Your task to perform on an android device: add a contact in the contacts app Image 0: 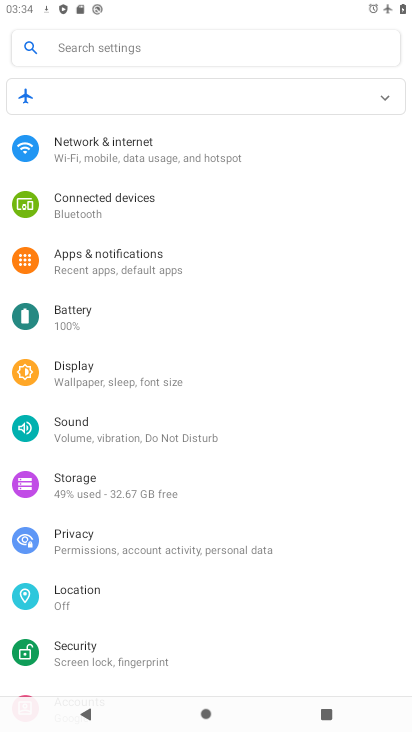
Step 0: press home button
Your task to perform on an android device: add a contact in the contacts app Image 1: 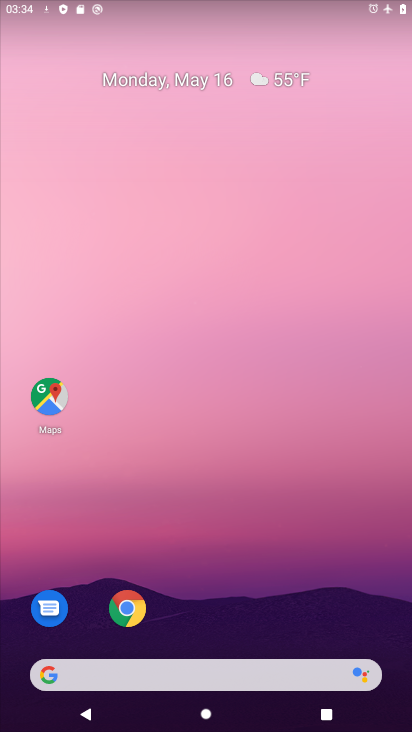
Step 1: drag from (190, 634) to (207, 230)
Your task to perform on an android device: add a contact in the contacts app Image 2: 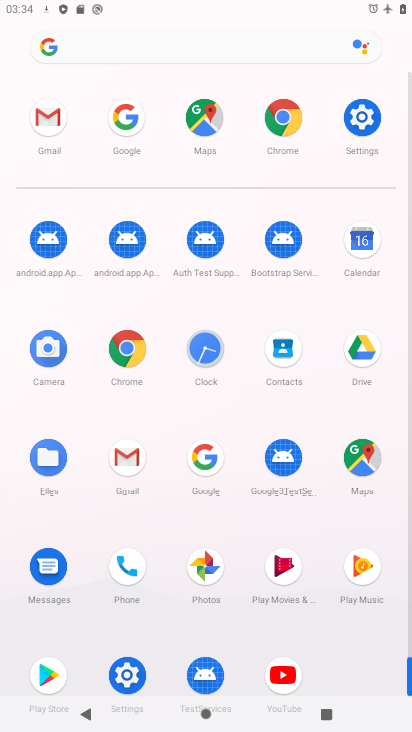
Step 2: click (286, 351)
Your task to perform on an android device: add a contact in the contacts app Image 3: 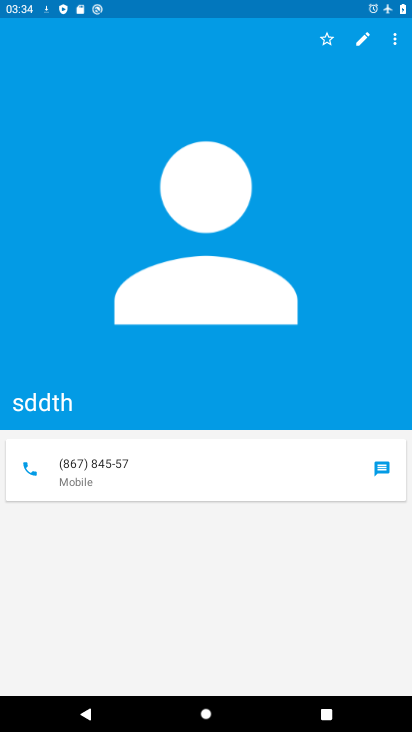
Step 3: press back button
Your task to perform on an android device: add a contact in the contacts app Image 4: 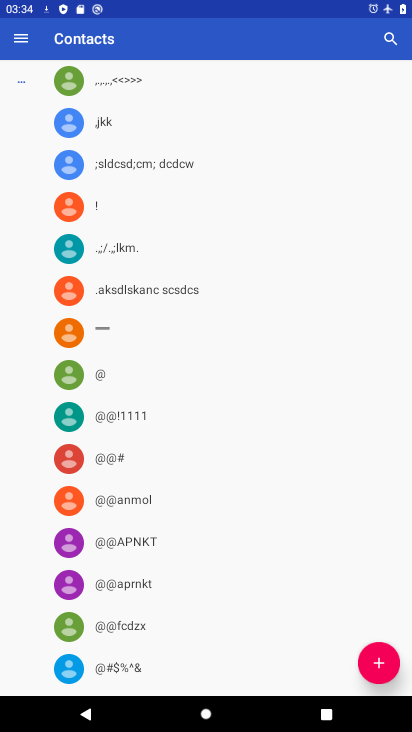
Step 4: click (385, 657)
Your task to perform on an android device: add a contact in the contacts app Image 5: 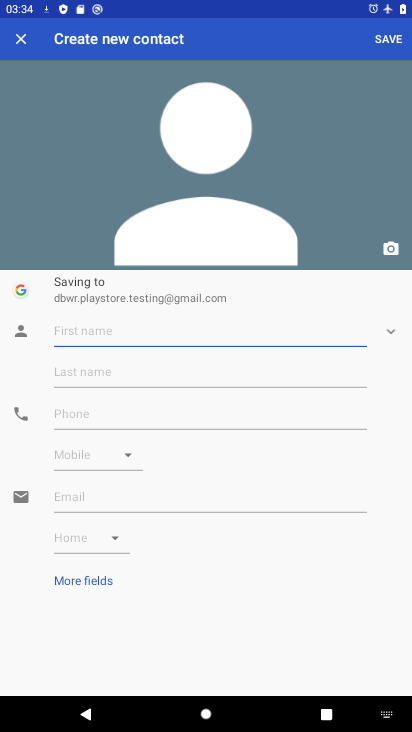
Step 5: type "cggh"
Your task to perform on an android device: add a contact in the contacts app Image 6: 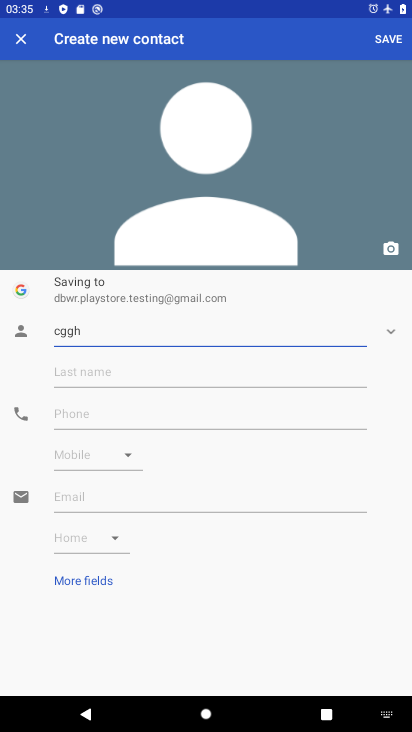
Step 6: click (97, 416)
Your task to perform on an android device: add a contact in the contacts app Image 7: 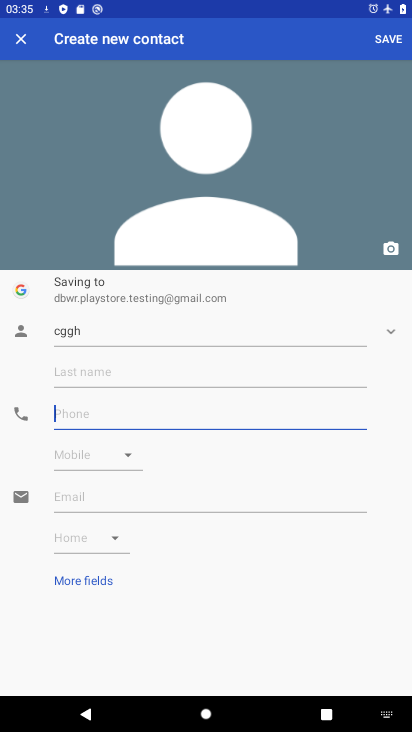
Step 7: type "567576566"
Your task to perform on an android device: add a contact in the contacts app Image 8: 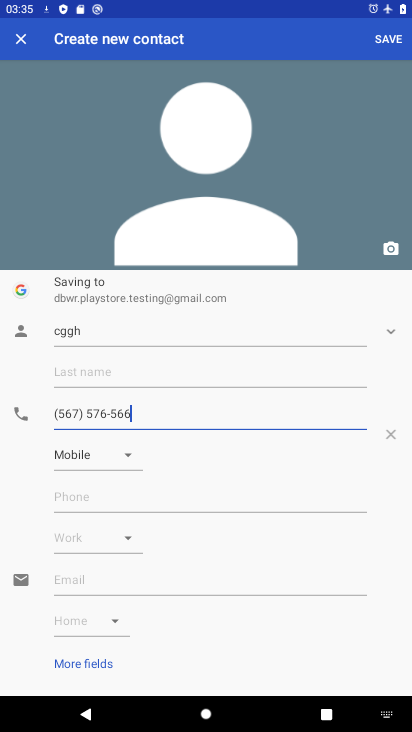
Step 8: click (385, 41)
Your task to perform on an android device: add a contact in the contacts app Image 9: 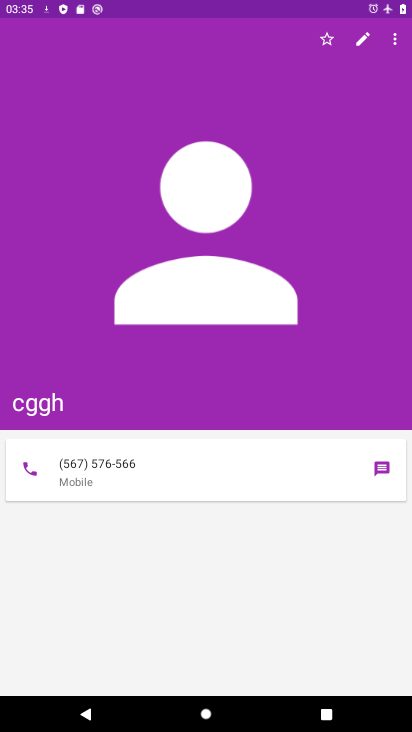
Step 9: task complete